Your task to perform on an android device: Show me popular games on the Play Store Image 0: 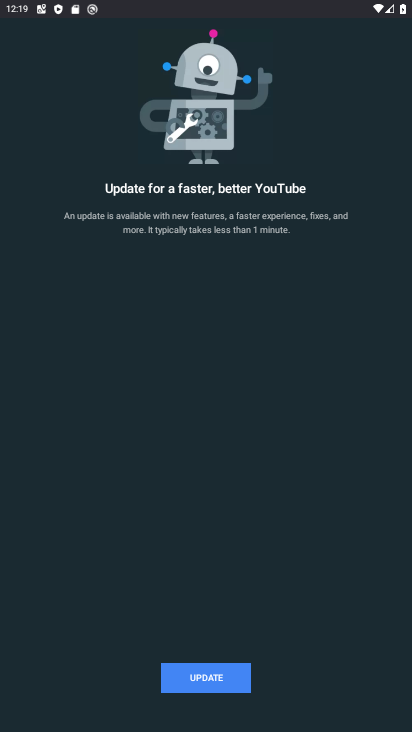
Step 0: press home button
Your task to perform on an android device: Show me popular games on the Play Store Image 1: 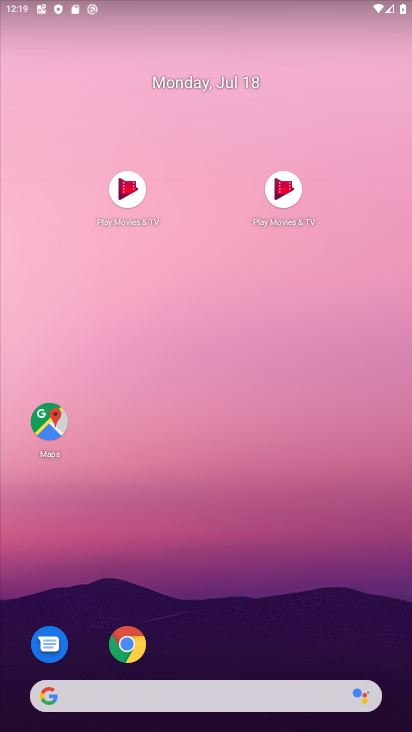
Step 1: drag from (266, 553) to (232, 189)
Your task to perform on an android device: Show me popular games on the Play Store Image 2: 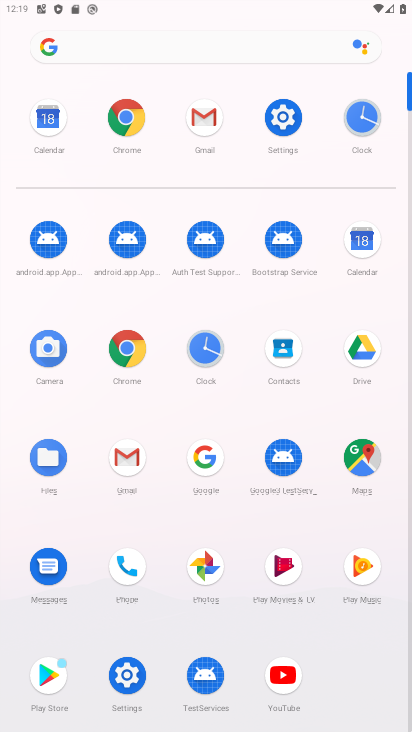
Step 2: click (52, 674)
Your task to perform on an android device: Show me popular games on the Play Store Image 3: 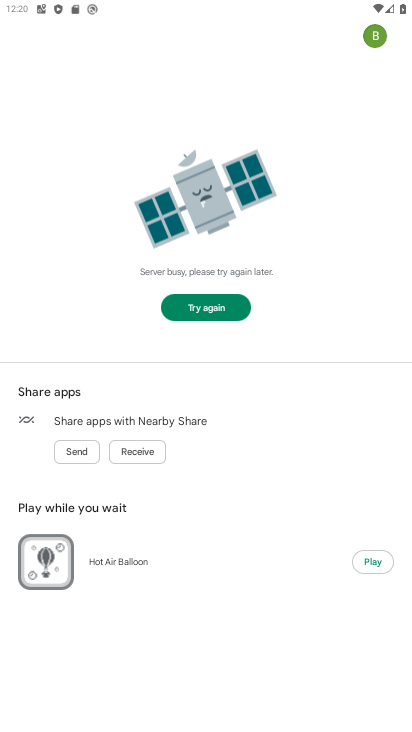
Step 3: click (212, 307)
Your task to perform on an android device: Show me popular games on the Play Store Image 4: 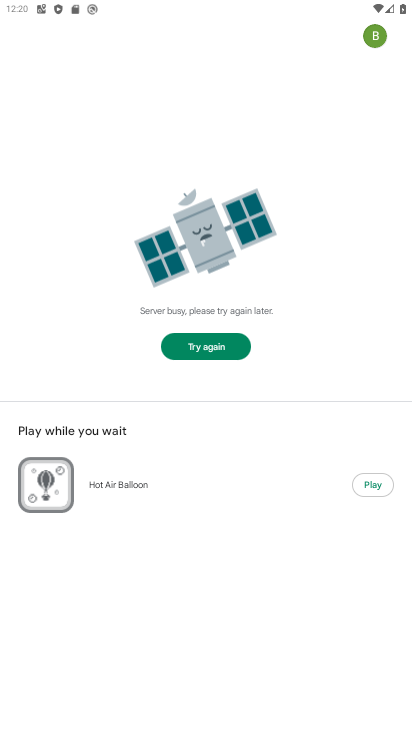
Step 4: task complete